Your task to perform on an android device: change the clock display to digital Image 0: 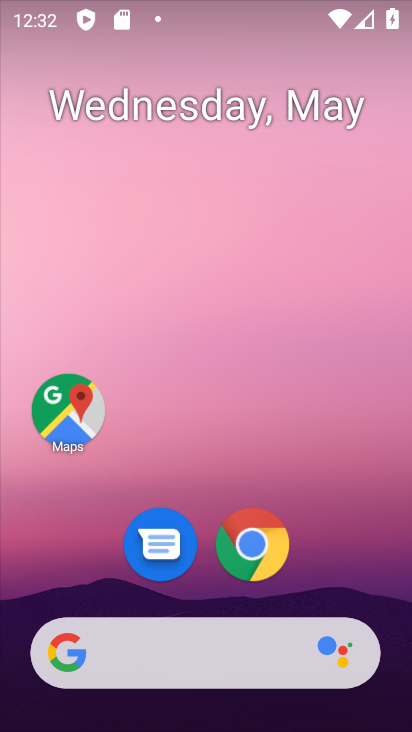
Step 0: drag from (325, 580) to (301, 153)
Your task to perform on an android device: change the clock display to digital Image 1: 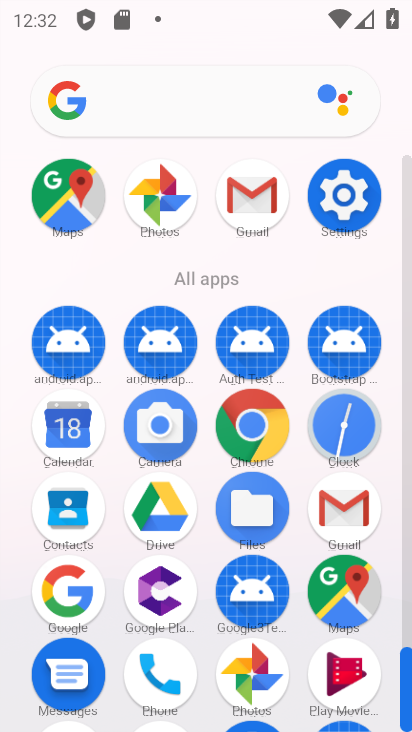
Step 1: drag from (300, 537) to (304, 153)
Your task to perform on an android device: change the clock display to digital Image 2: 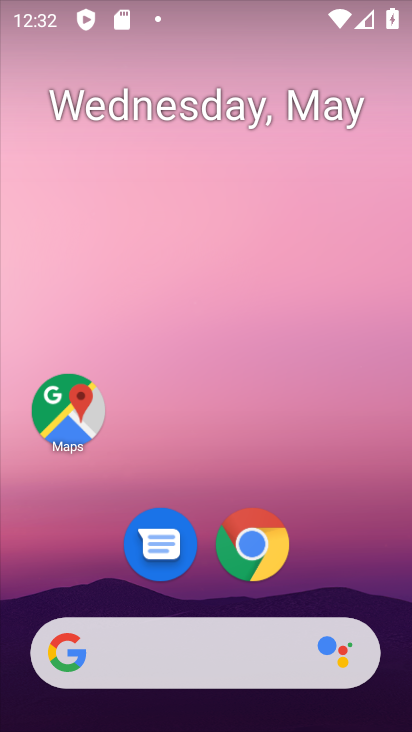
Step 2: drag from (349, 563) to (338, 125)
Your task to perform on an android device: change the clock display to digital Image 3: 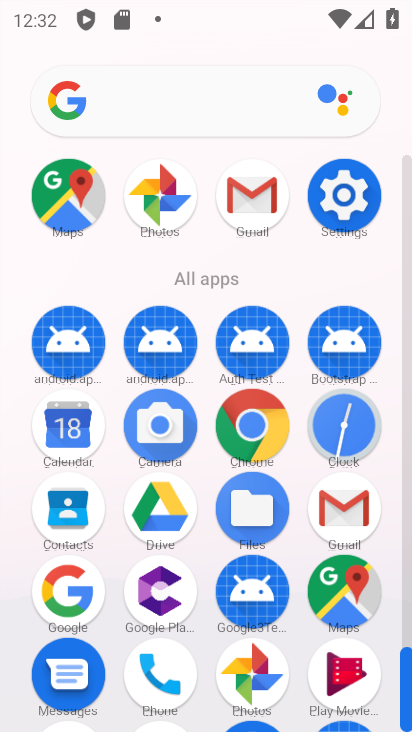
Step 3: click (348, 430)
Your task to perform on an android device: change the clock display to digital Image 4: 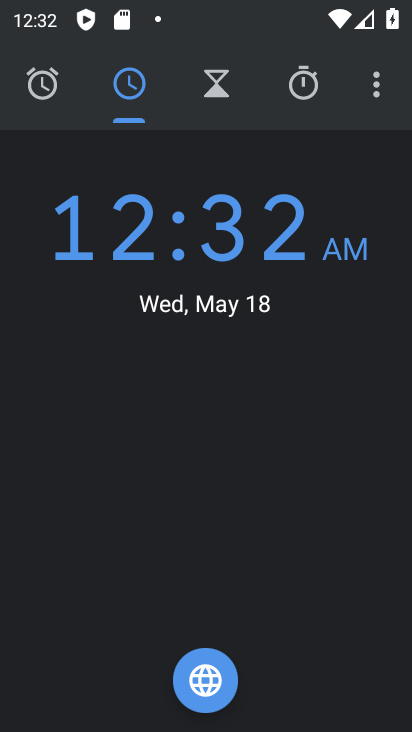
Step 4: click (376, 85)
Your task to perform on an android device: change the clock display to digital Image 5: 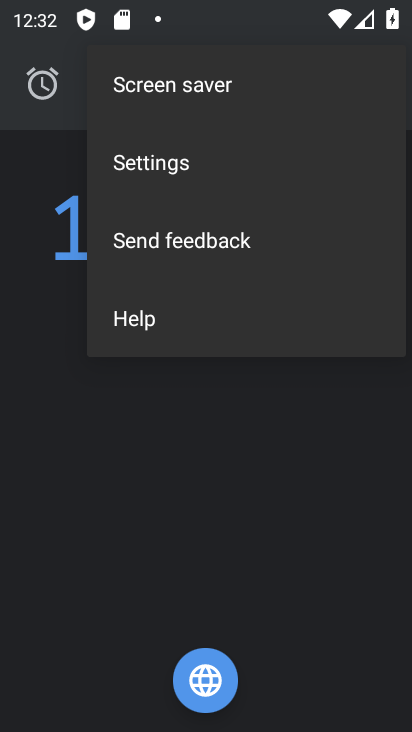
Step 5: click (182, 172)
Your task to perform on an android device: change the clock display to digital Image 6: 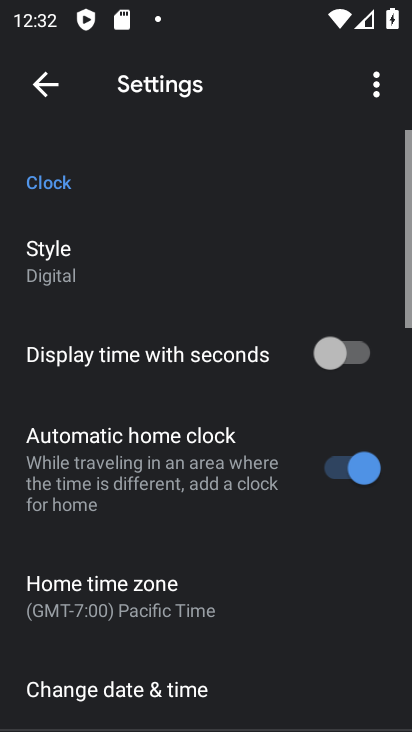
Step 6: click (63, 268)
Your task to perform on an android device: change the clock display to digital Image 7: 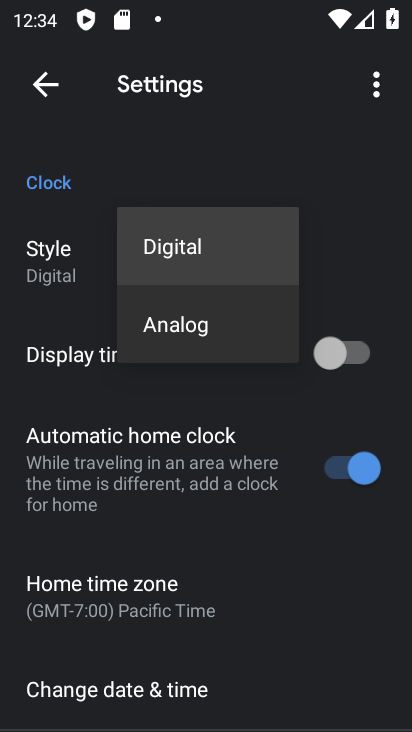
Step 7: task complete